Your task to perform on an android device: find which apps use the phone's location Image 0: 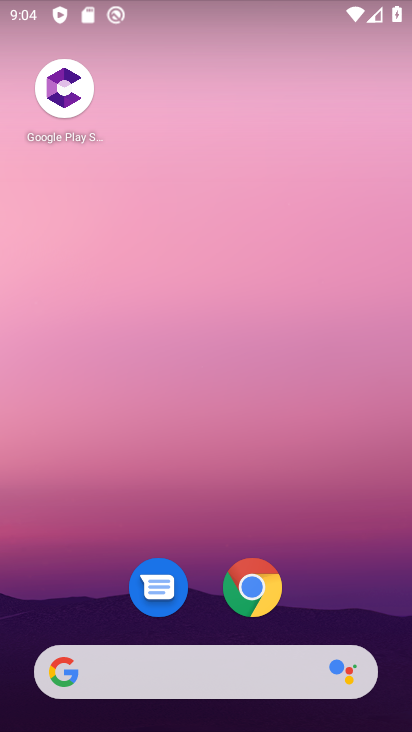
Step 0: drag from (331, 476) to (371, 49)
Your task to perform on an android device: find which apps use the phone's location Image 1: 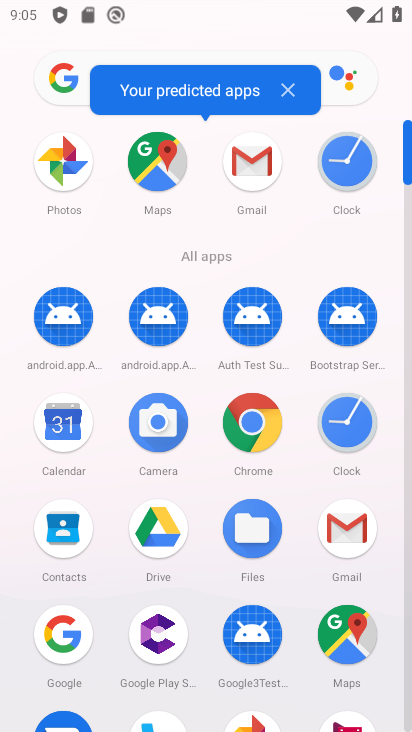
Step 1: drag from (205, 402) to (219, 133)
Your task to perform on an android device: find which apps use the phone's location Image 2: 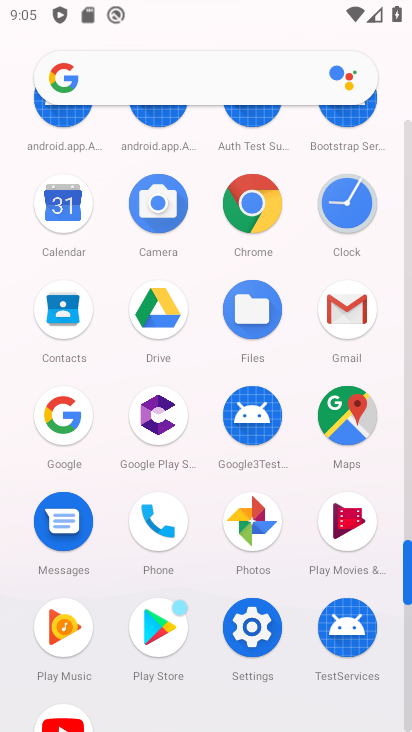
Step 2: click (156, 513)
Your task to perform on an android device: find which apps use the phone's location Image 3: 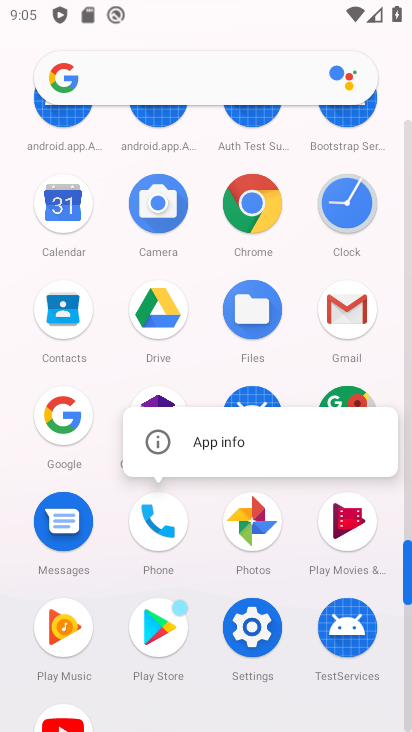
Step 3: click (192, 458)
Your task to perform on an android device: find which apps use the phone's location Image 4: 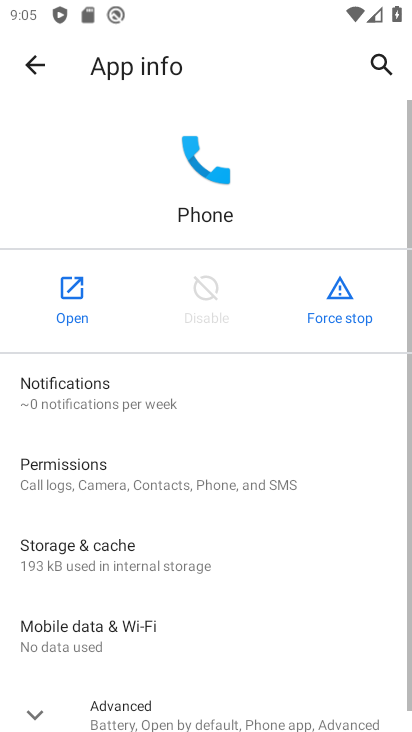
Step 4: drag from (166, 612) to (241, 391)
Your task to perform on an android device: find which apps use the phone's location Image 5: 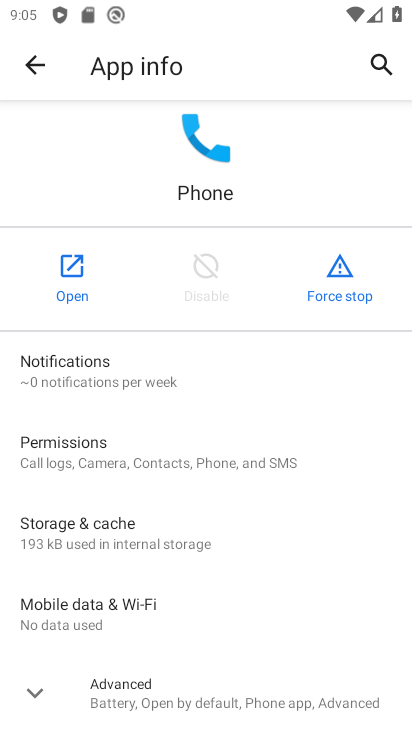
Step 5: click (56, 460)
Your task to perform on an android device: find which apps use the phone's location Image 6: 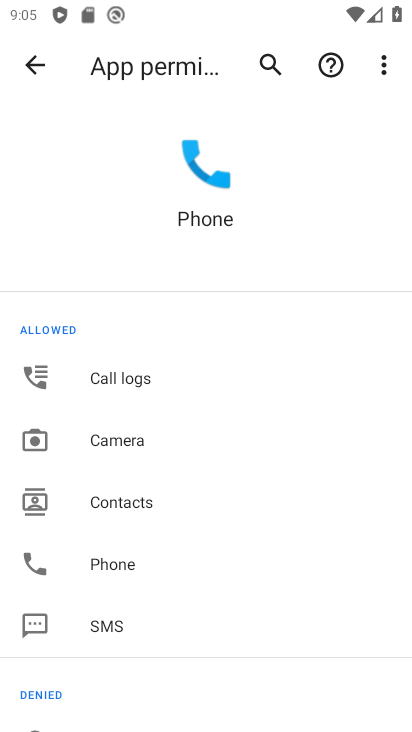
Step 6: drag from (260, 635) to (252, 269)
Your task to perform on an android device: find which apps use the phone's location Image 7: 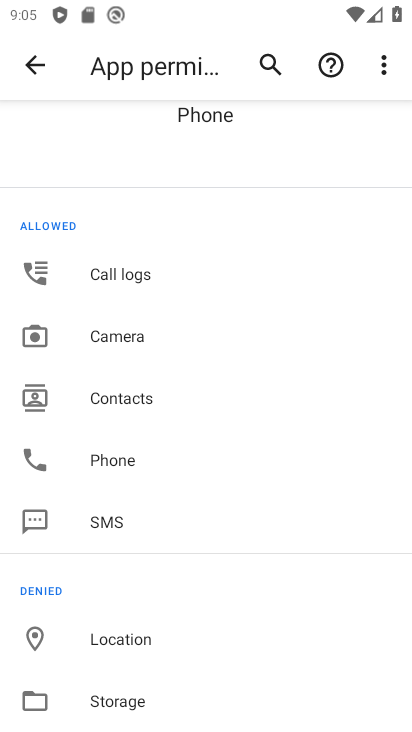
Step 7: click (101, 634)
Your task to perform on an android device: find which apps use the phone's location Image 8: 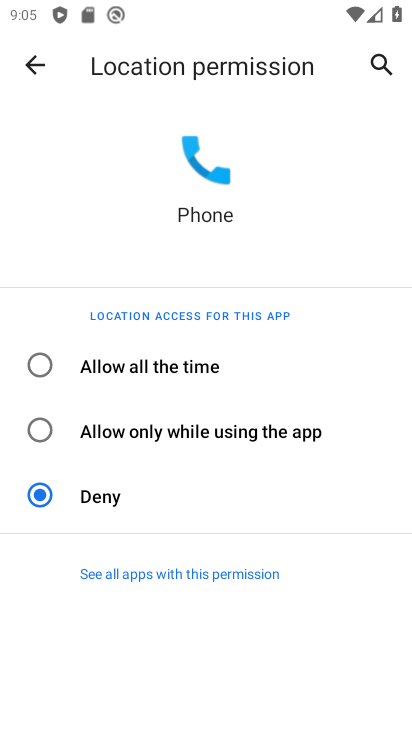
Step 8: task complete